Your task to perform on an android device: turn off picture-in-picture Image 0: 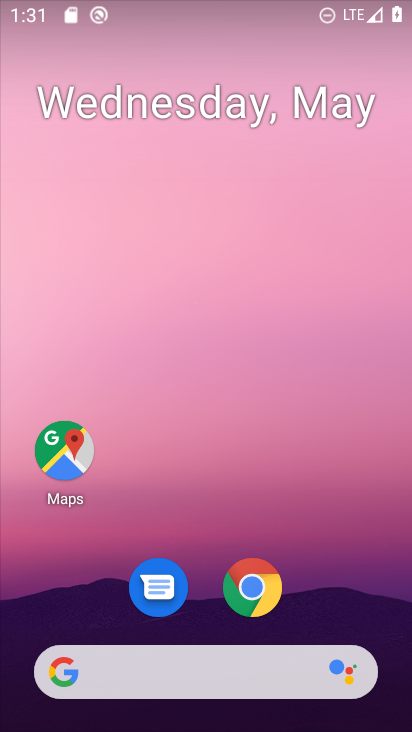
Step 0: drag from (303, 623) to (221, 141)
Your task to perform on an android device: turn off picture-in-picture Image 1: 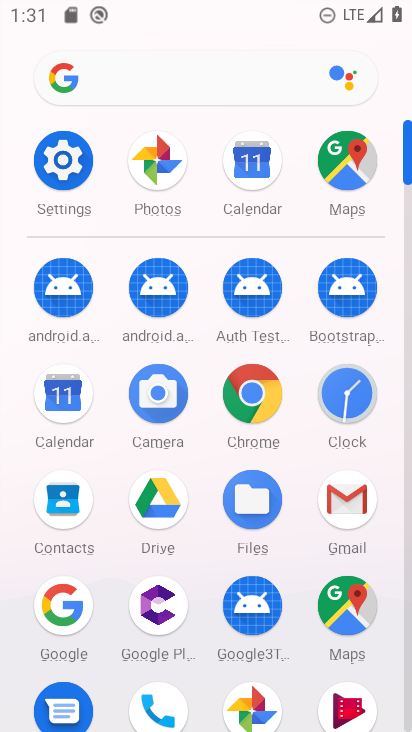
Step 1: click (78, 207)
Your task to perform on an android device: turn off picture-in-picture Image 2: 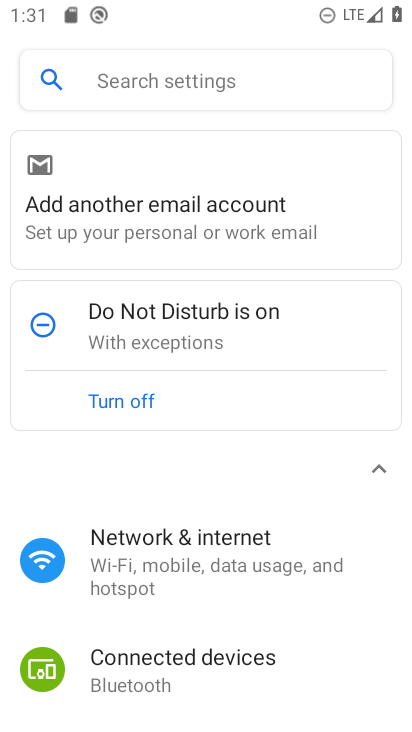
Step 2: drag from (250, 679) to (254, 307)
Your task to perform on an android device: turn off picture-in-picture Image 3: 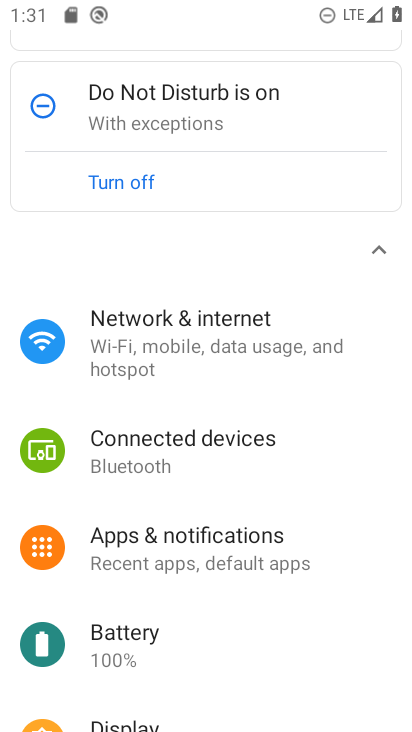
Step 3: click (216, 541)
Your task to perform on an android device: turn off picture-in-picture Image 4: 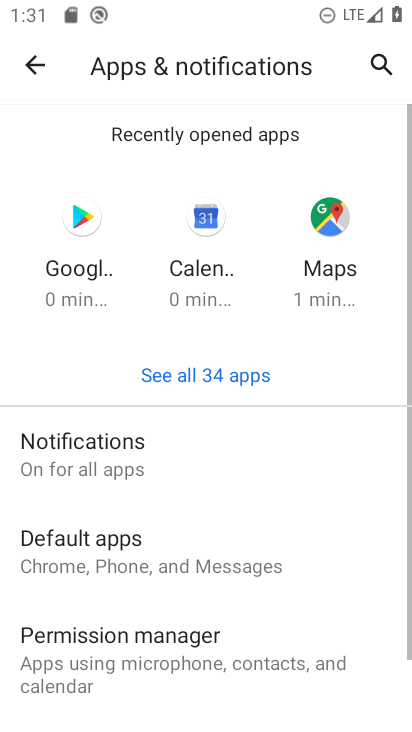
Step 4: drag from (198, 620) to (198, 282)
Your task to perform on an android device: turn off picture-in-picture Image 5: 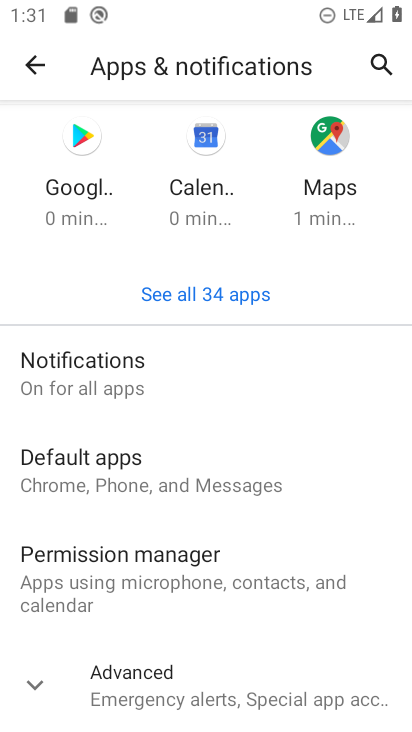
Step 5: drag from (217, 628) to (253, 324)
Your task to perform on an android device: turn off picture-in-picture Image 6: 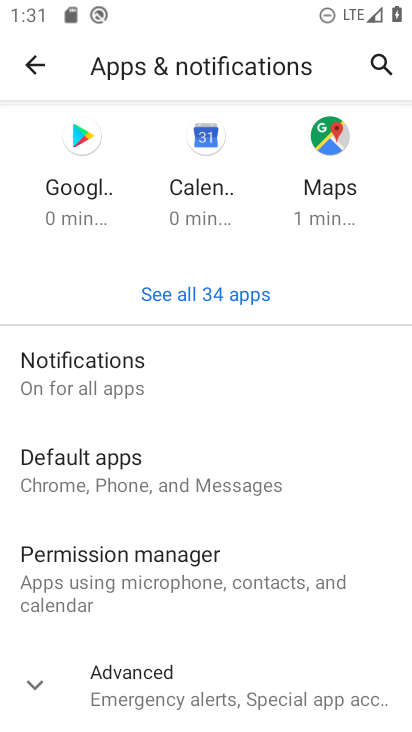
Step 6: click (159, 691)
Your task to perform on an android device: turn off picture-in-picture Image 7: 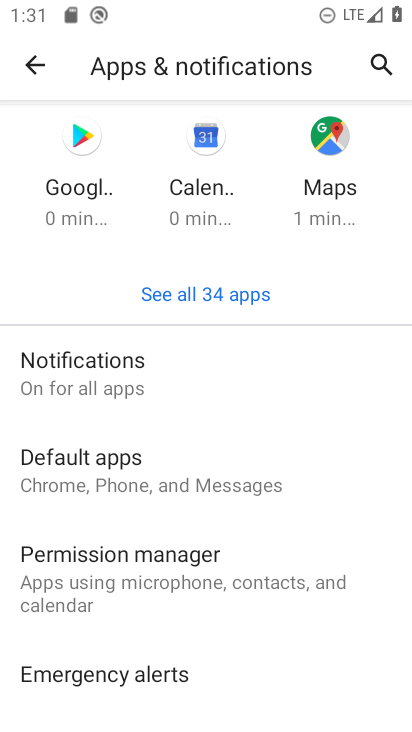
Step 7: drag from (155, 623) to (182, 319)
Your task to perform on an android device: turn off picture-in-picture Image 8: 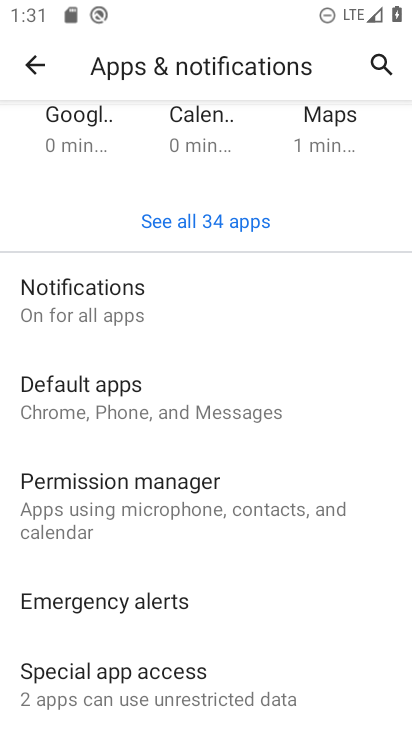
Step 8: drag from (203, 548) to (257, 246)
Your task to perform on an android device: turn off picture-in-picture Image 9: 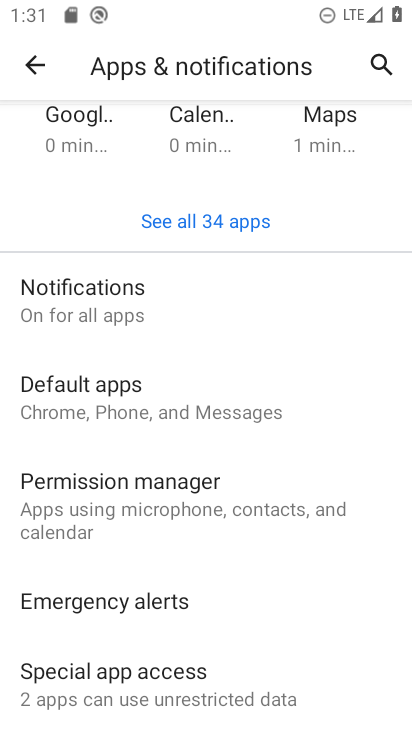
Step 9: click (87, 679)
Your task to perform on an android device: turn off picture-in-picture Image 10: 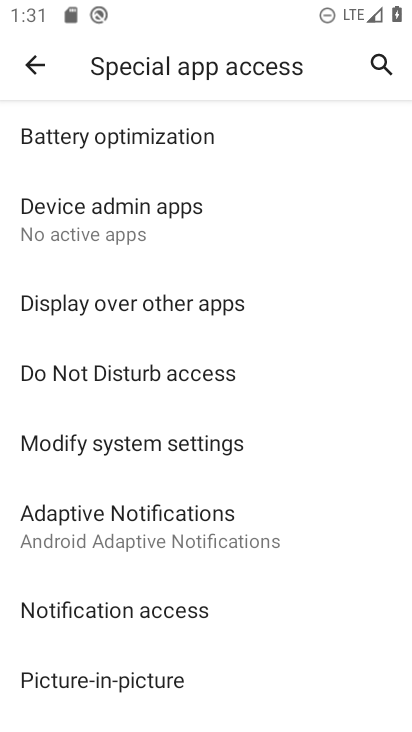
Step 10: click (131, 679)
Your task to perform on an android device: turn off picture-in-picture Image 11: 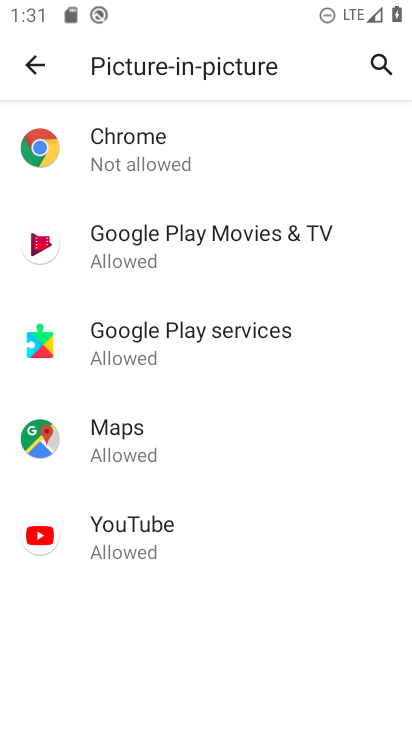
Step 11: click (213, 221)
Your task to perform on an android device: turn off picture-in-picture Image 12: 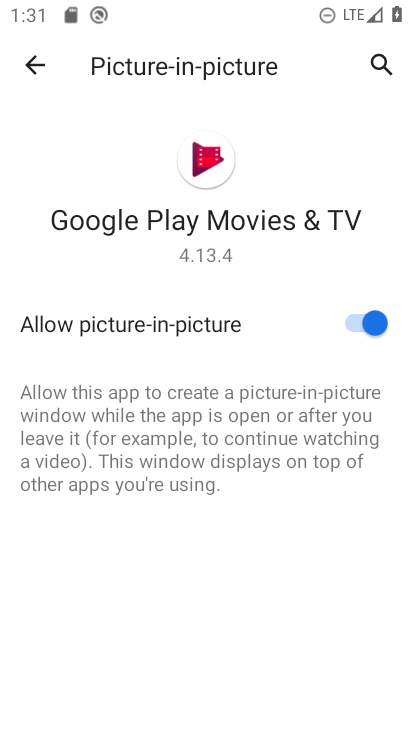
Step 12: click (348, 327)
Your task to perform on an android device: turn off picture-in-picture Image 13: 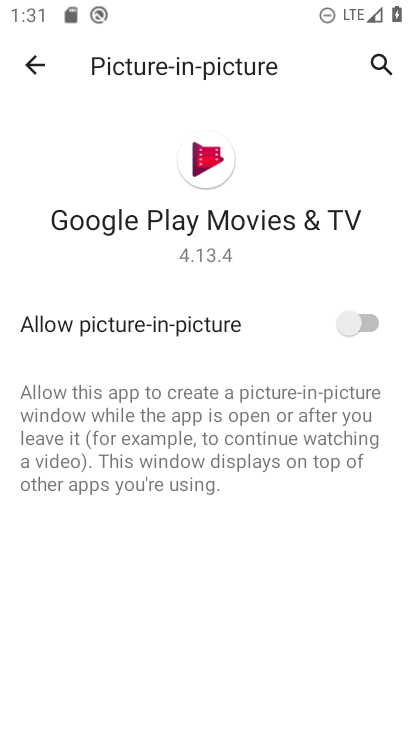
Step 13: task complete